Your task to perform on an android device: open app "Clock" Image 0: 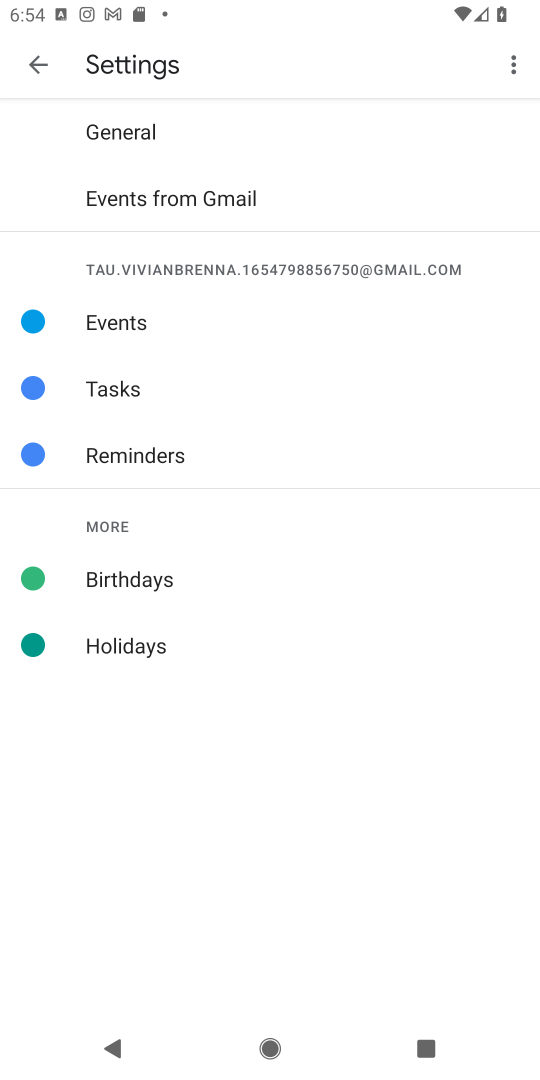
Step 0: press home button
Your task to perform on an android device: open app "Clock" Image 1: 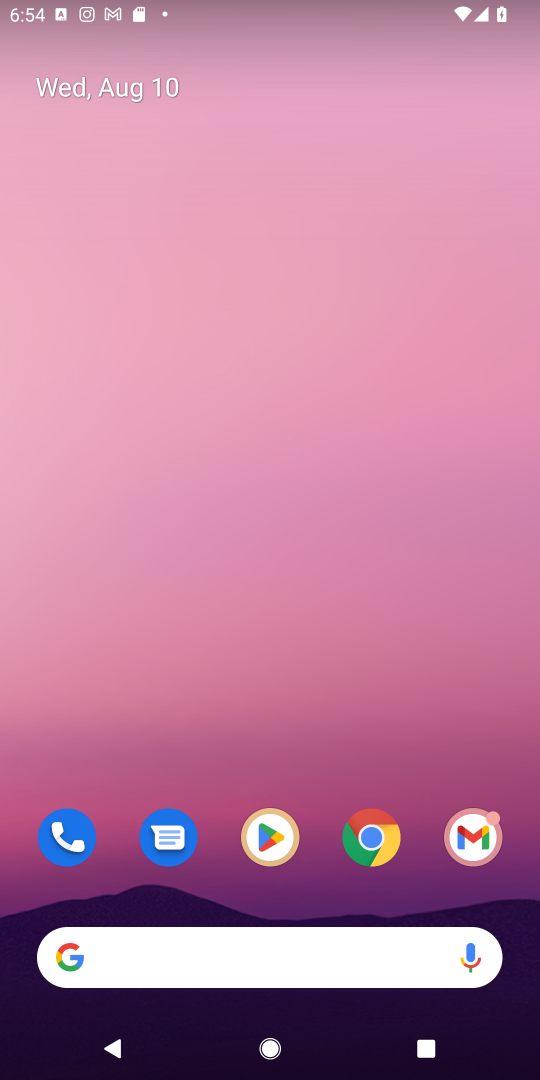
Step 1: click (270, 833)
Your task to perform on an android device: open app "Clock" Image 2: 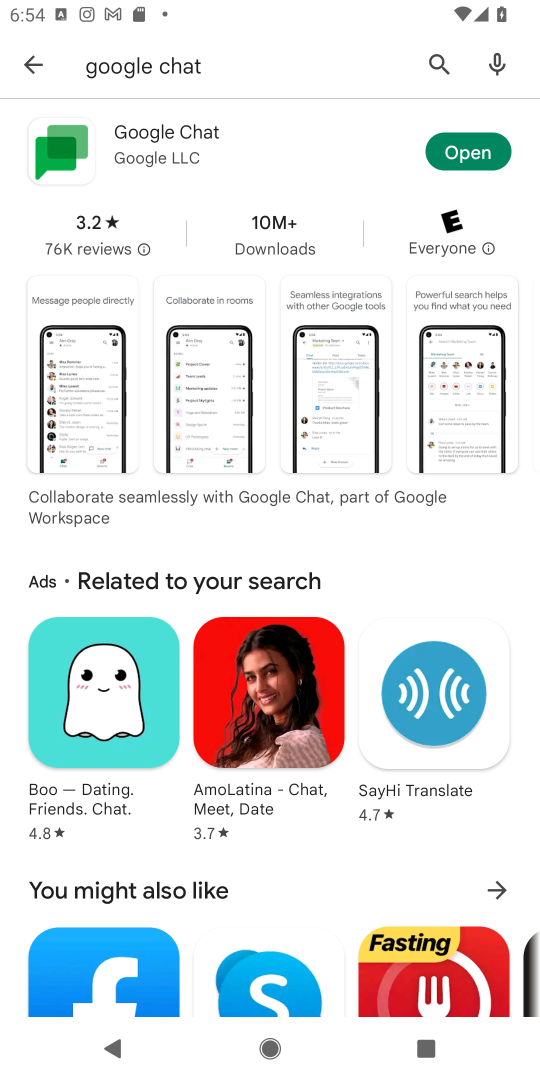
Step 2: click (440, 62)
Your task to perform on an android device: open app "Clock" Image 3: 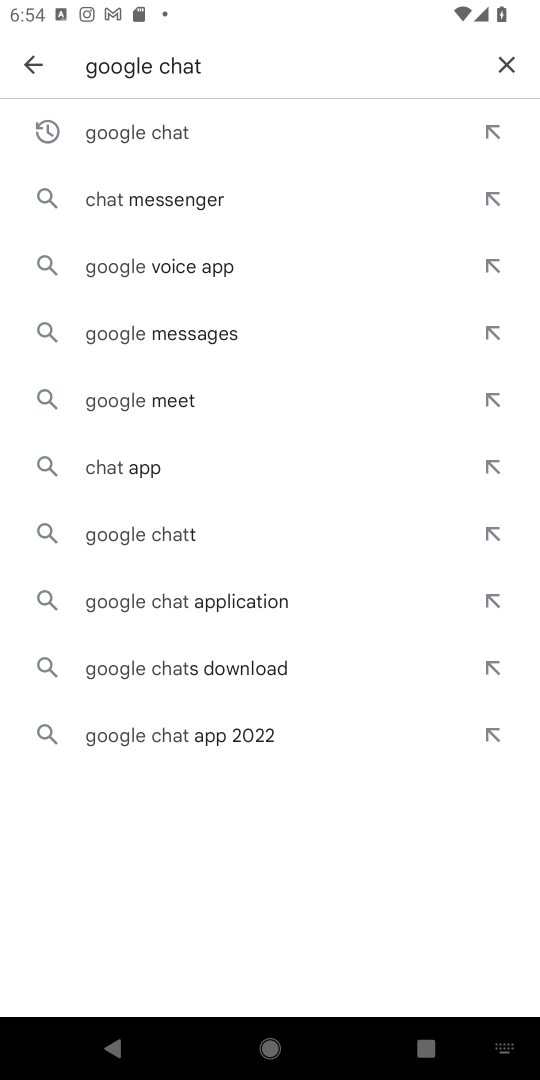
Step 3: click (498, 64)
Your task to perform on an android device: open app "Clock" Image 4: 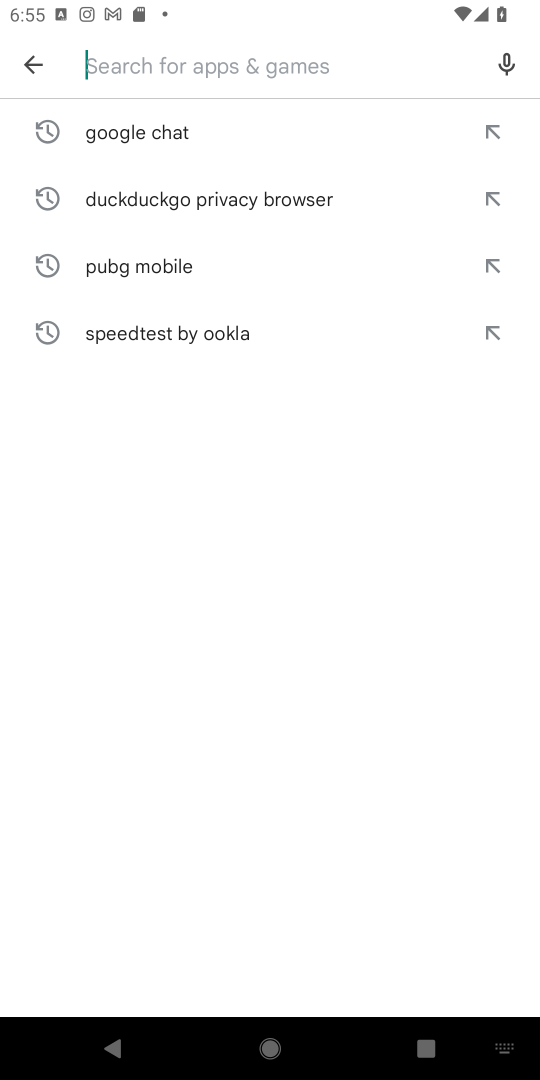
Step 4: type "Clock"
Your task to perform on an android device: open app "Clock" Image 5: 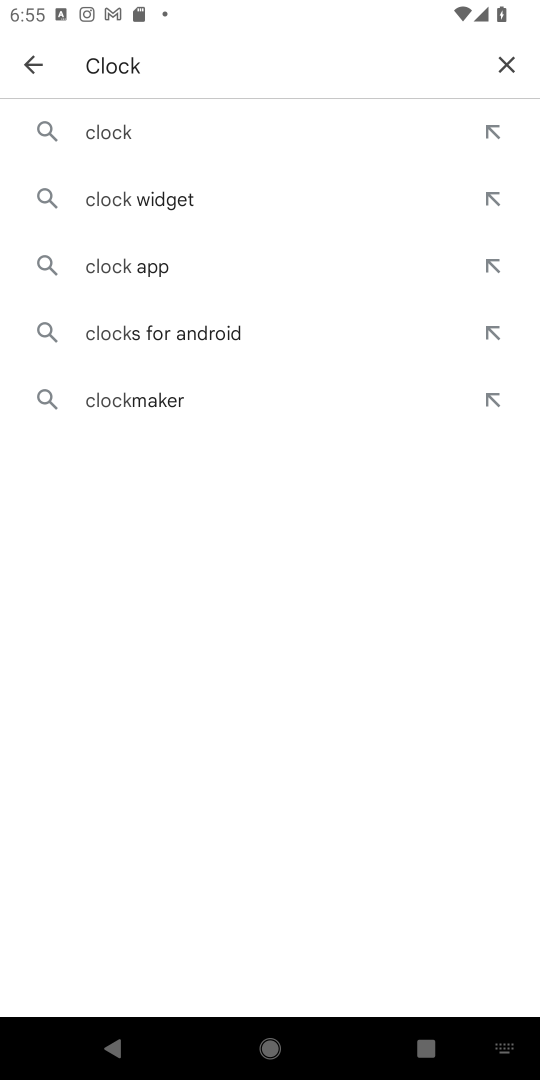
Step 5: click (109, 128)
Your task to perform on an android device: open app "Clock" Image 6: 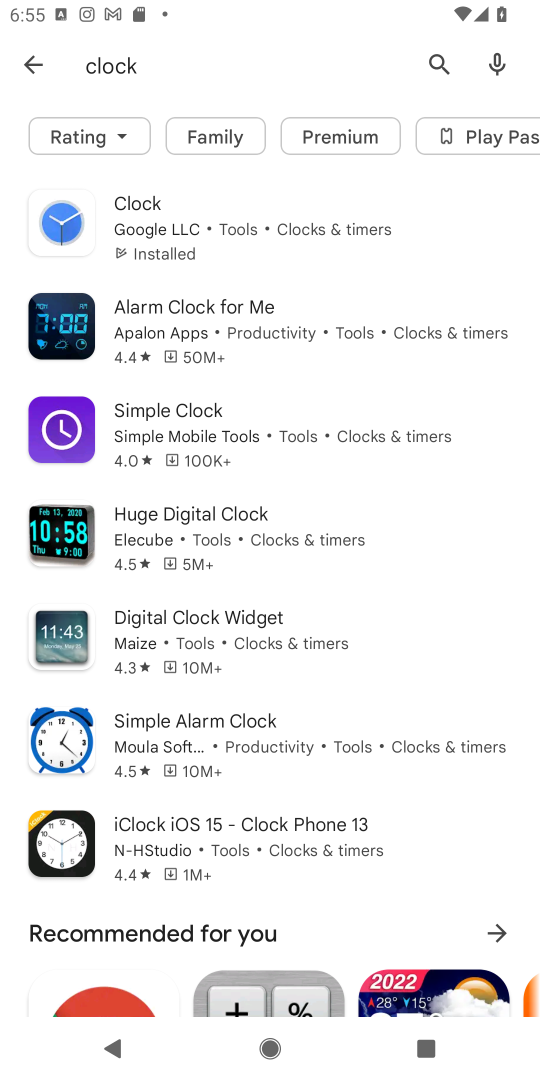
Step 6: click (191, 253)
Your task to perform on an android device: open app "Clock" Image 7: 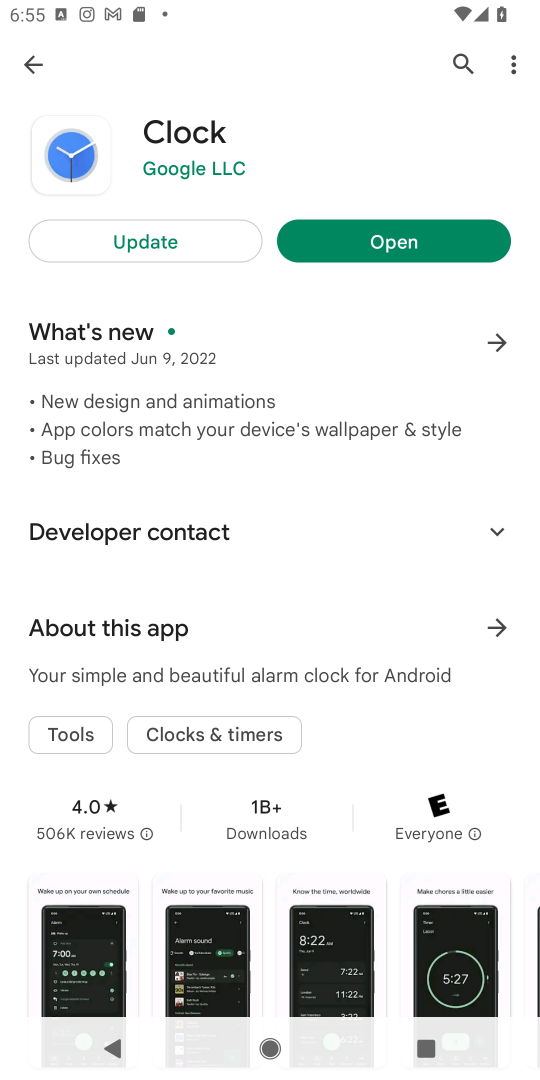
Step 7: click (370, 235)
Your task to perform on an android device: open app "Clock" Image 8: 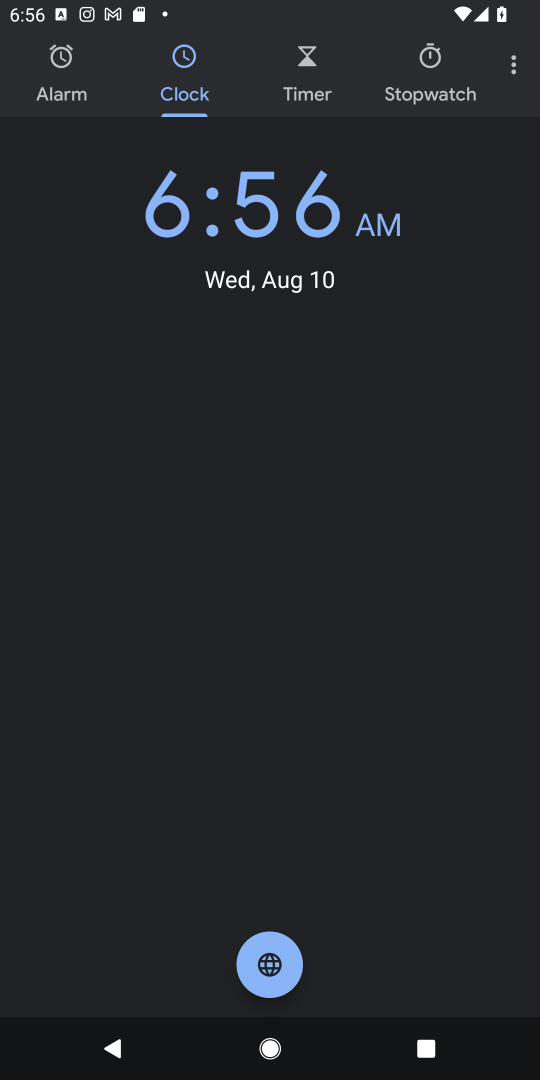
Step 8: task complete